Your task to perform on an android device: show emergency info Image 0: 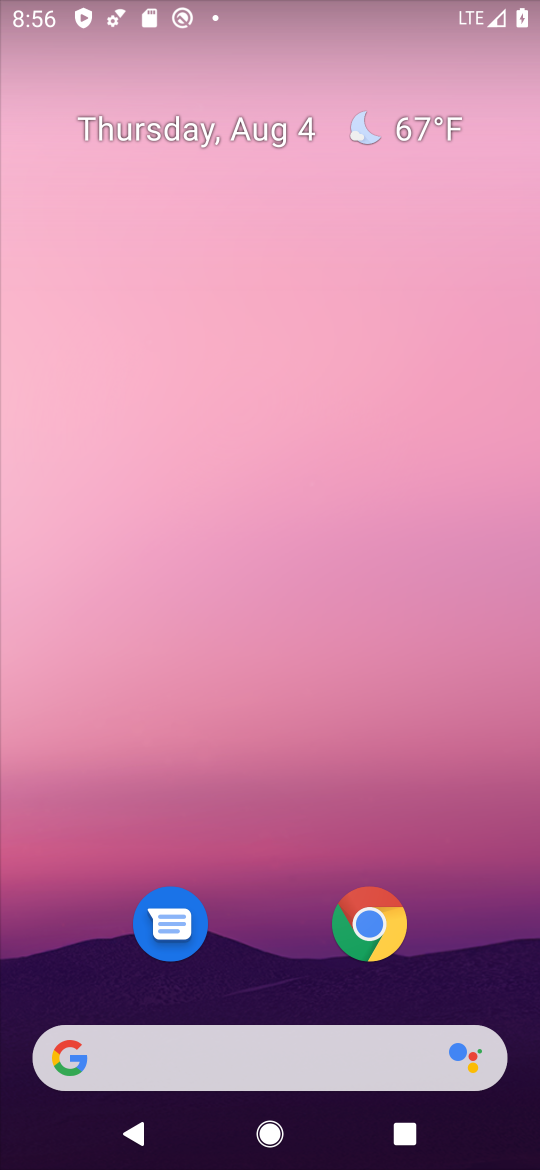
Step 0: drag from (277, 883) to (486, 742)
Your task to perform on an android device: show emergency info Image 1: 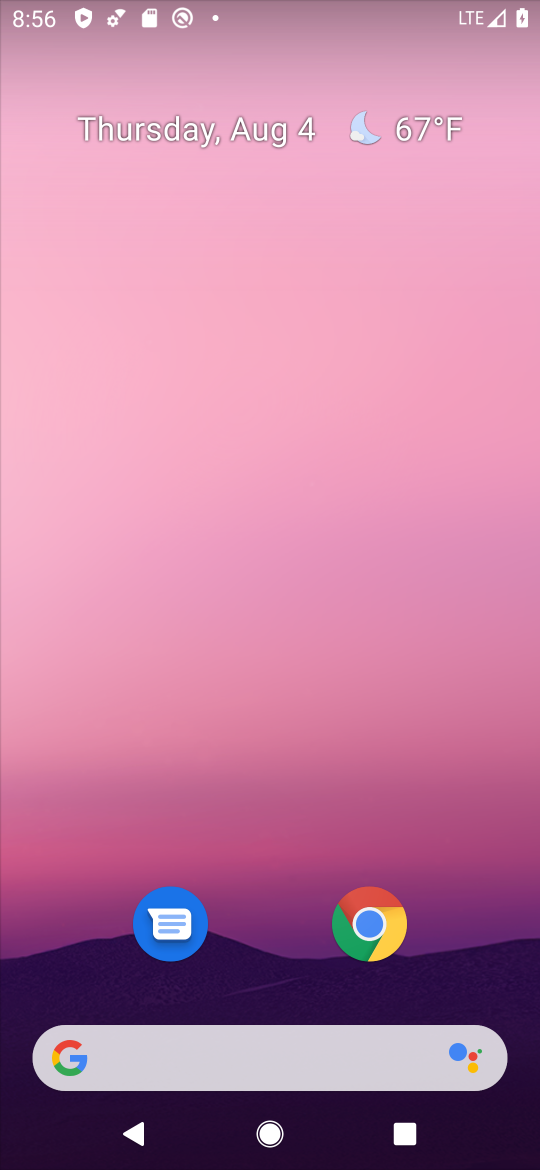
Step 1: drag from (272, 1013) to (329, 24)
Your task to perform on an android device: show emergency info Image 2: 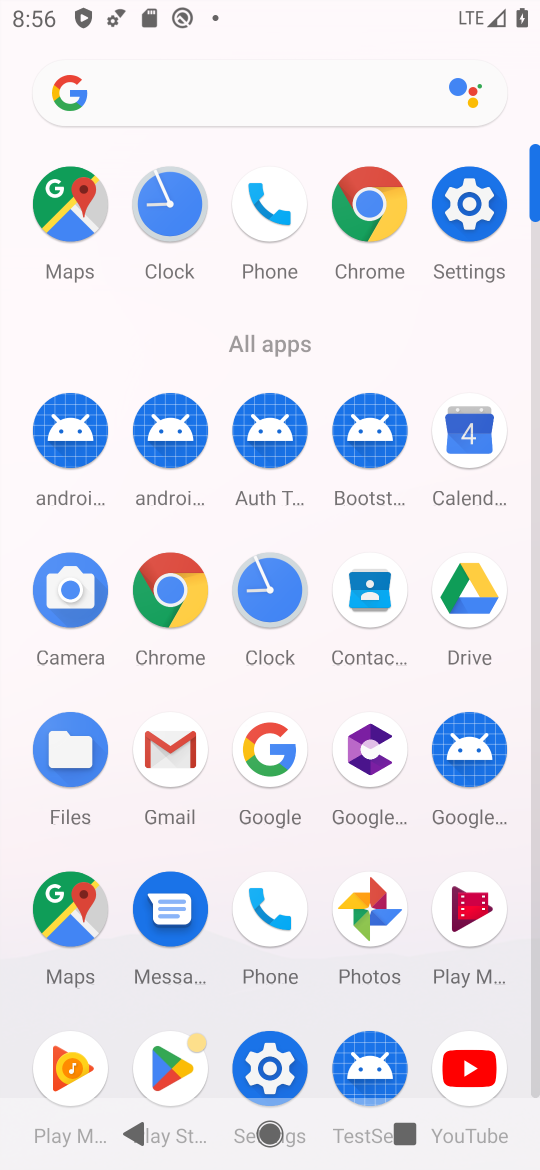
Step 2: click (470, 223)
Your task to perform on an android device: show emergency info Image 3: 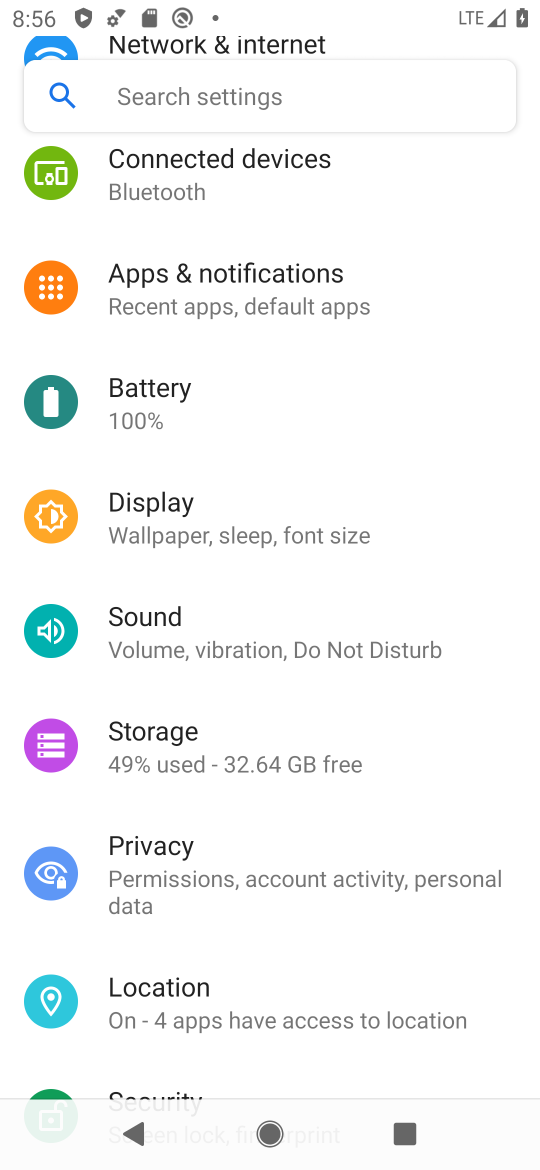
Step 3: drag from (379, 914) to (355, 20)
Your task to perform on an android device: show emergency info Image 4: 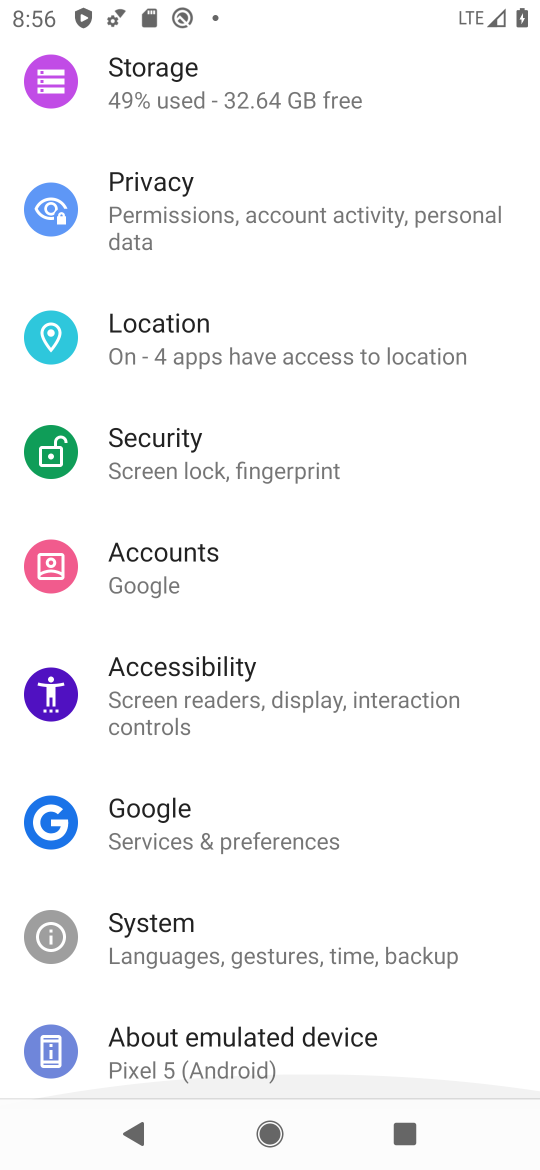
Step 4: click (302, 1021)
Your task to perform on an android device: show emergency info Image 5: 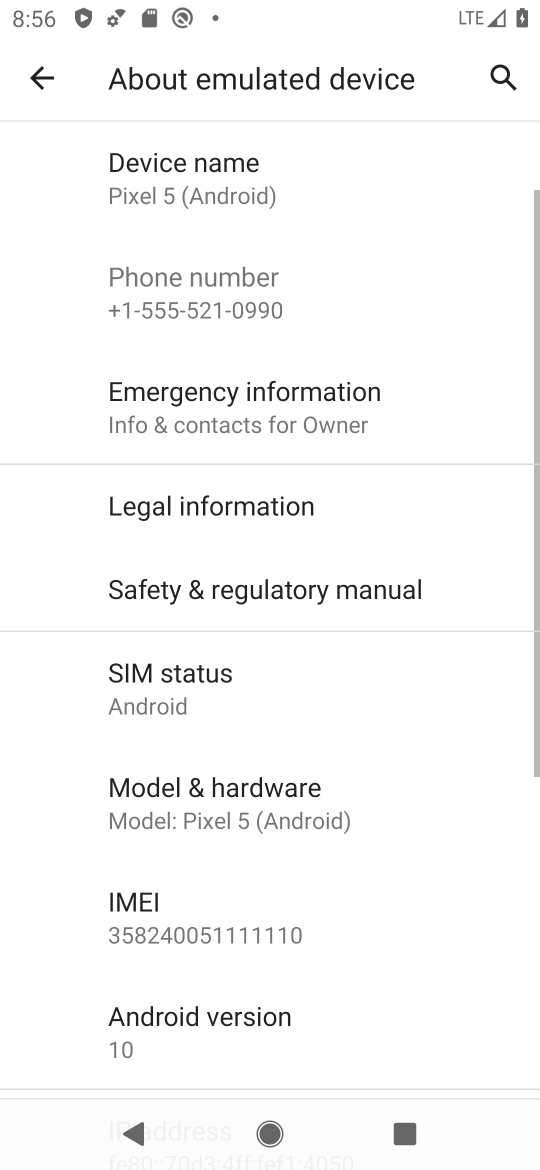
Step 5: click (224, 410)
Your task to perform on an android device: show emergency info Image 6: 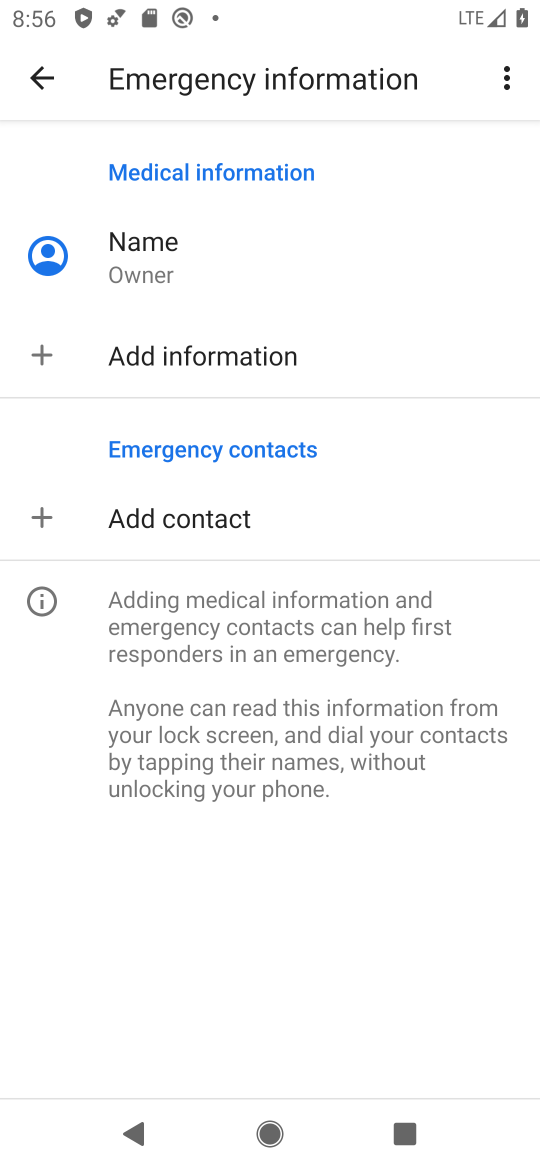
Step 6: task complete